Your task to perform on an android device: Is it going to rain this weekend? Image 0: 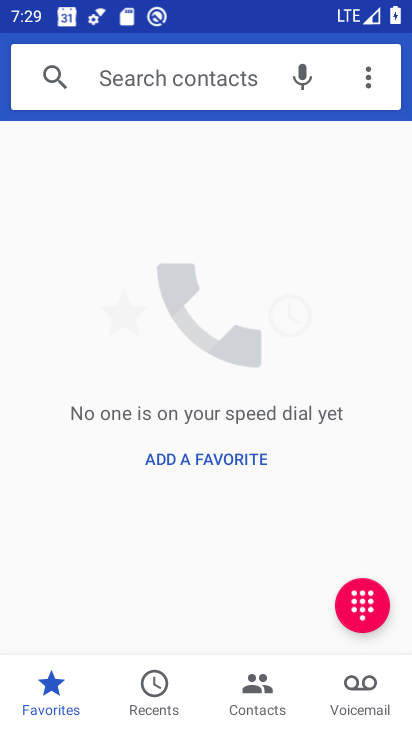
Step 0: press home button
Your task to perform on an android device: Is it going to rain this weekend? Image 1: 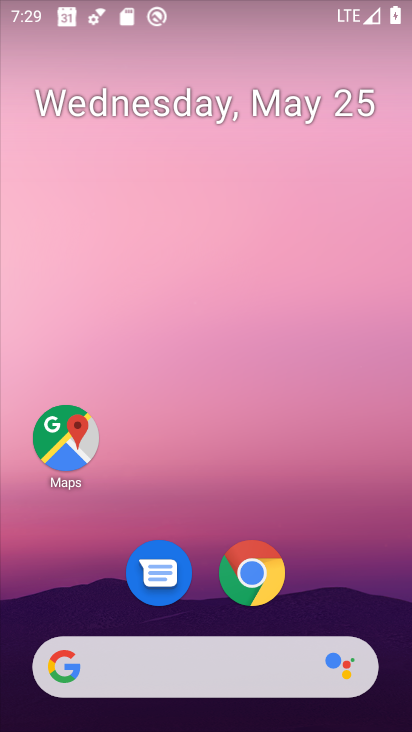
Step 1: drag from (391, 702) to (357, 356)
Your task to perform on an android device: Is it going to rain this weekend? Image 2: 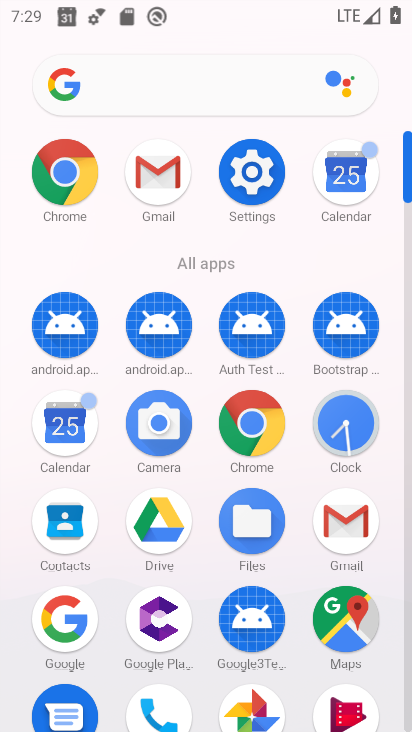
Step 2: click (67, 610)
Your task to perform on an android device: Is it going to rain this weekend? Image 3: 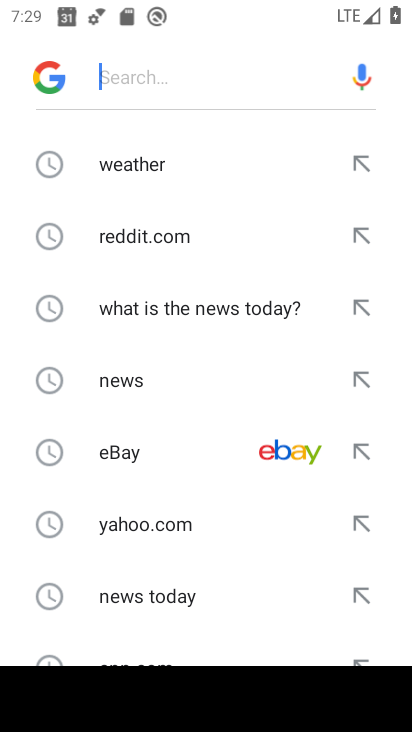
Step 3: press back button
Your task to perform on an android device: Is it going to rain this weekend? Image 4: 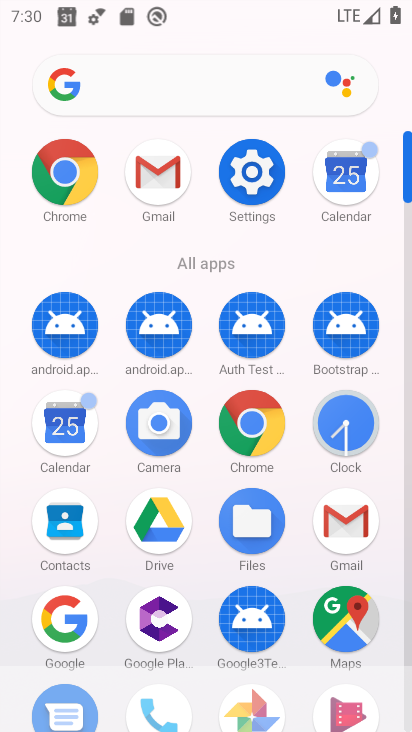
Step 4: click (56, 612)
Your task to perform on an android device: Is it going to rain this weekend? Image 5: 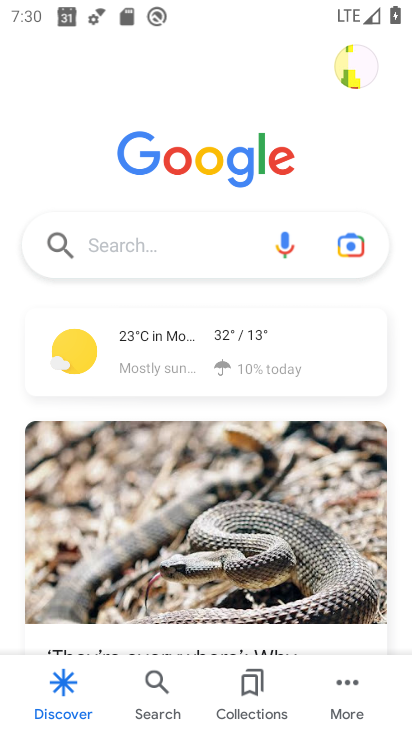
Step 5: click (191, 339)
Your task to perform on an android device: Is it going to rain this weekend? Image 6: 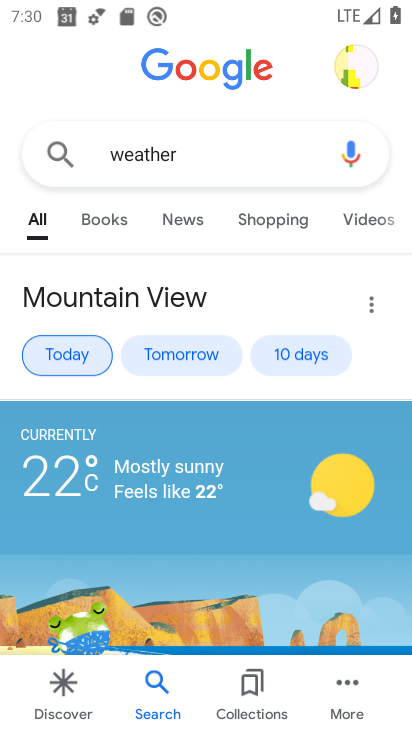
Step 6: click (291, 359)
Your task to perform on an android device: Is it going to rain this weekend? Image 7: 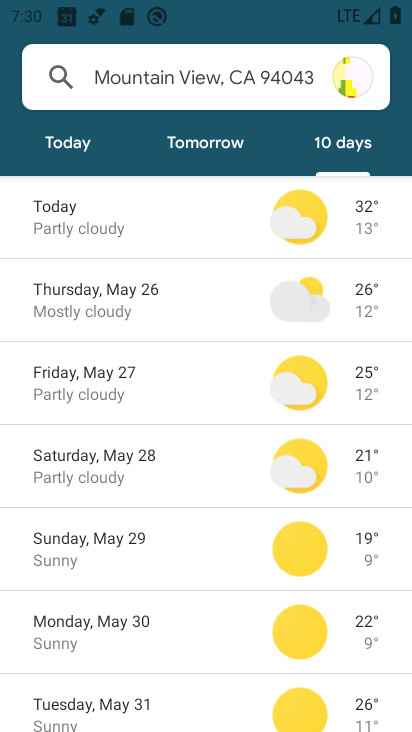
Step 7: task complete